Your task to perform on an android device: check android version Image 0: 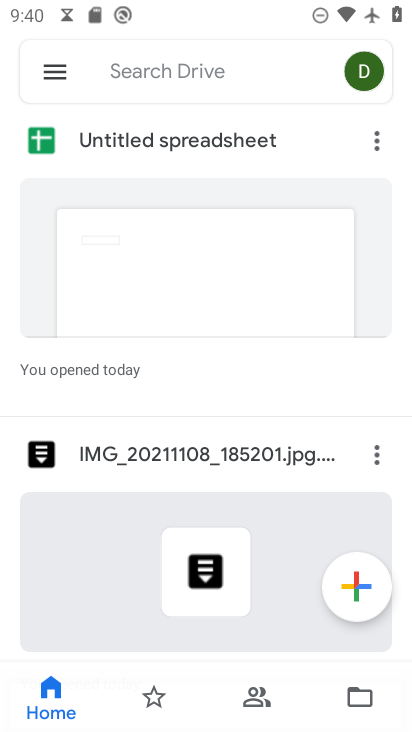
Step 0: press home button
Your task to perform on an android device: check android version Image 1: 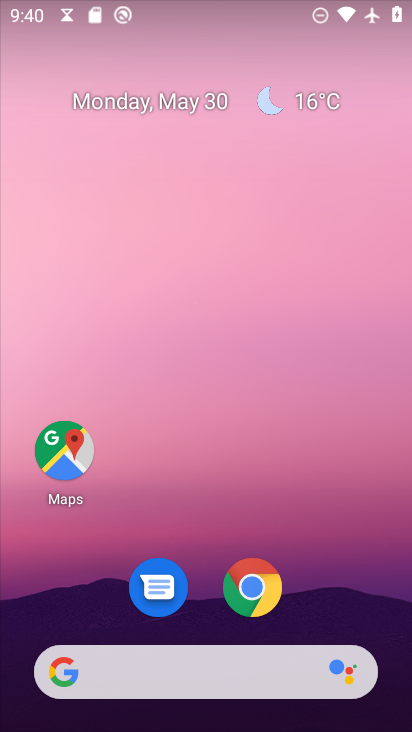
Step 1: drag from (180, 667) to (328, 96)
Your task to perform on an android device: check android version Image 2: 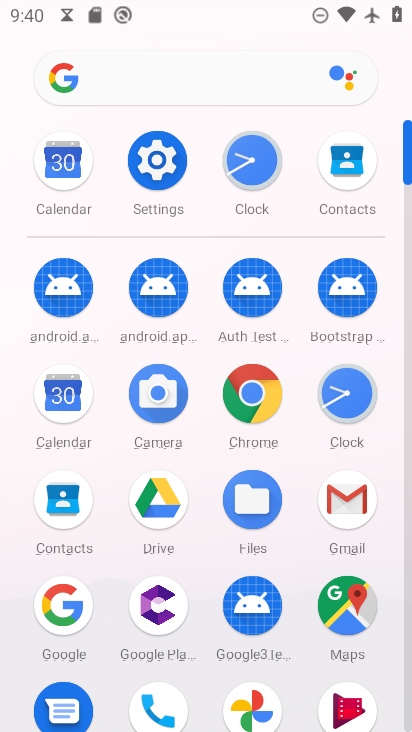
Step 2: click (159, 167)
Your task to perform on an android device: check android version Image 3: 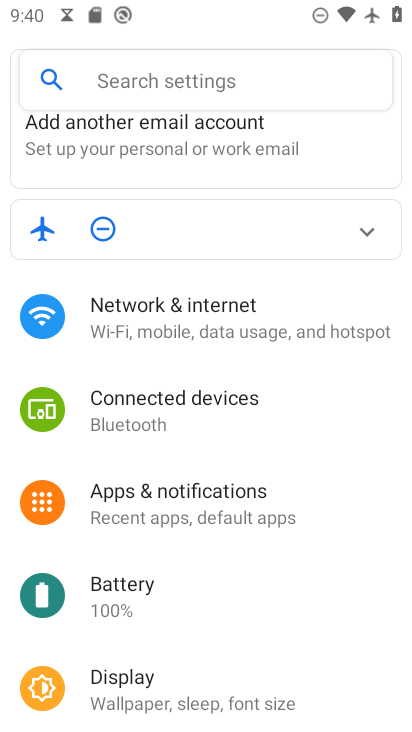
Step 3: drag from (197, 653) to (371, 129)
Your task to perform on an android device: check android version Image 4: 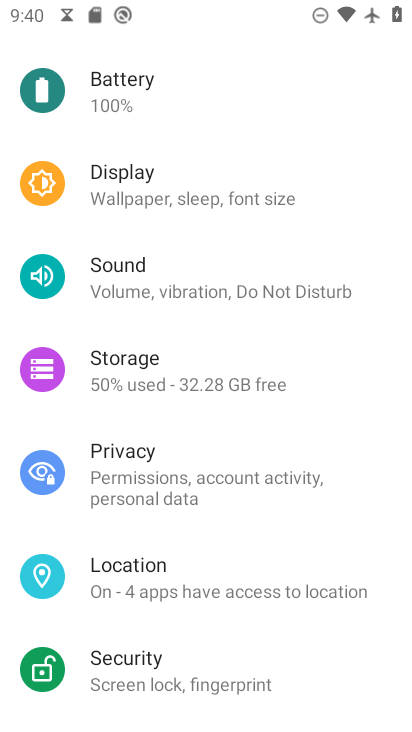
Step 4: drag from (235, 651) to (377, 48)
Your task to perform on an android device: check android version Image 5: 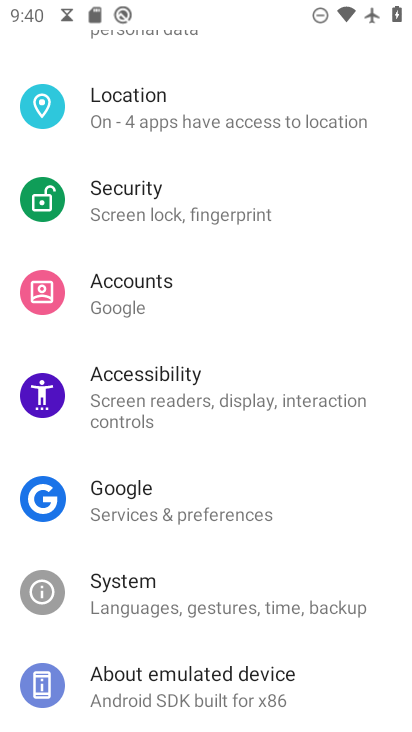
Step 5: click (176, 692)
Your task to perform on an android device: check android version Image 6: 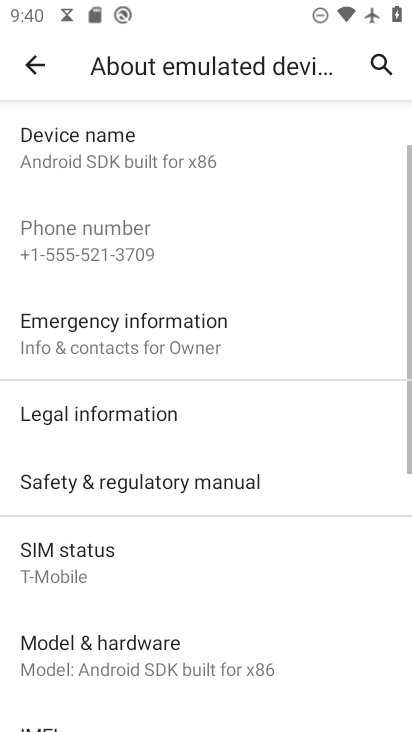
Step 6: drag from (219, 630) to (386, 177)
Your task to perform on an android device: check android version Image 7: 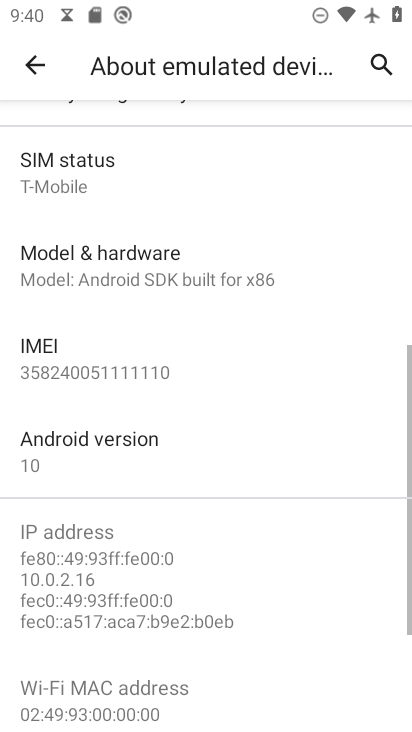
Step 7: drag from (254, 655) to (335, 410)
Your task to perform on an android device: check android version Image 8: 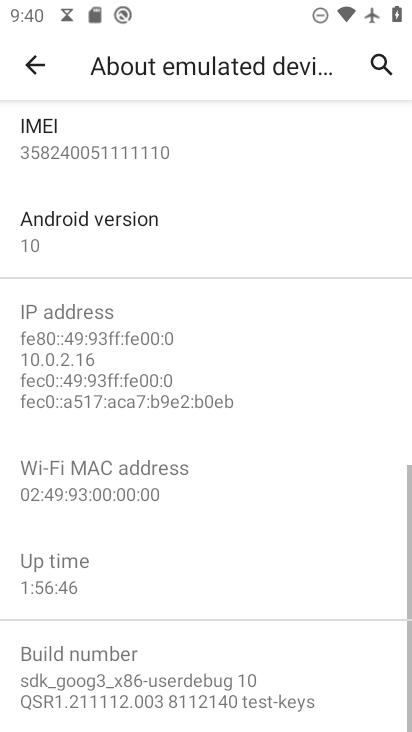
Step 8: click (118, 214)
Your task to perform on an android device: check android version Image 9: 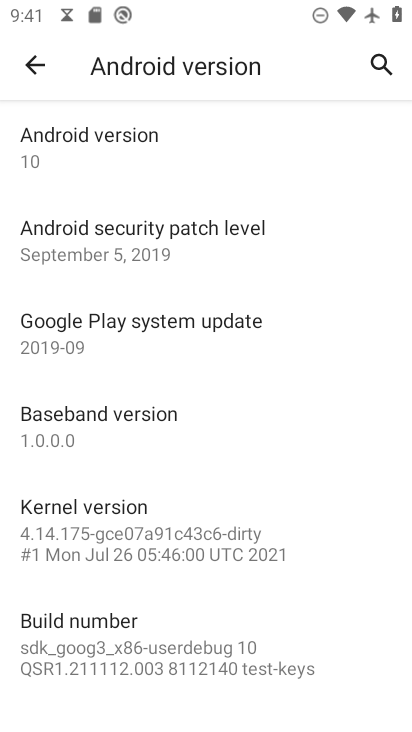
Step 9: task complete